Your task to perform on an android device: Go to internet settings Image 0: 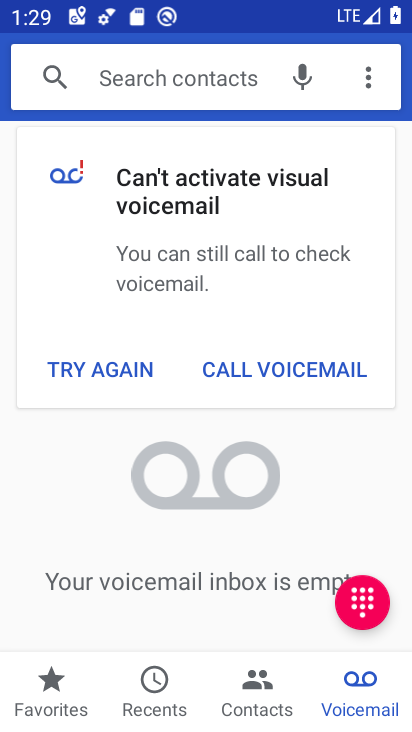
Step 0: drag from (244, 636) to (306, 169)
Your task to perform on an android device: Go to internet settings Image 1: 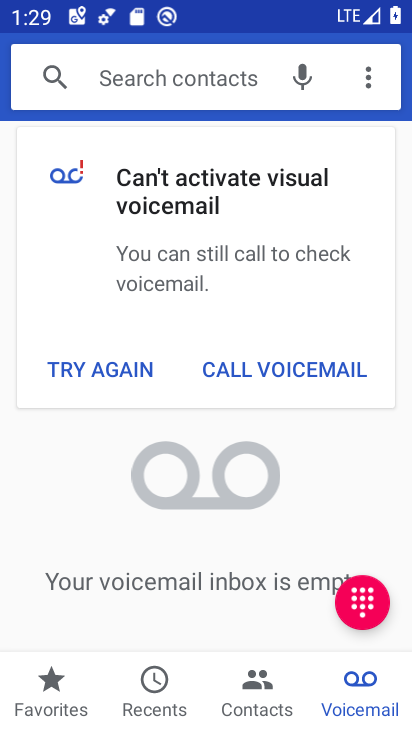
Step 1: drag from (189, 588) to (402, 138)
Your task to perform on an android device: Go to internet settings Image 2: 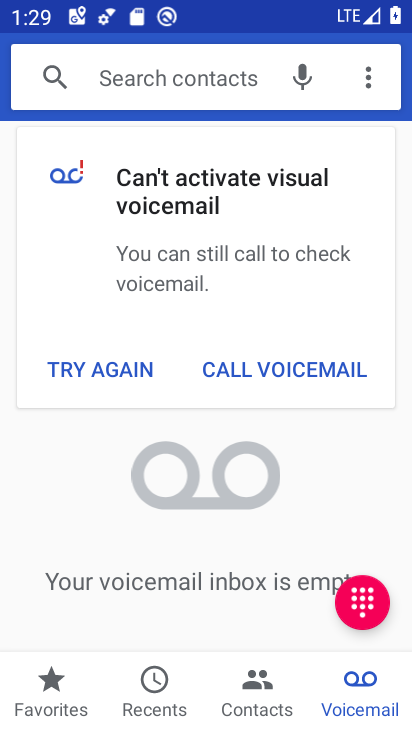
Step 2: drag from (188, 564) to (258, 163)
Your task to perform on an android device: Go to internet settings Image 3: 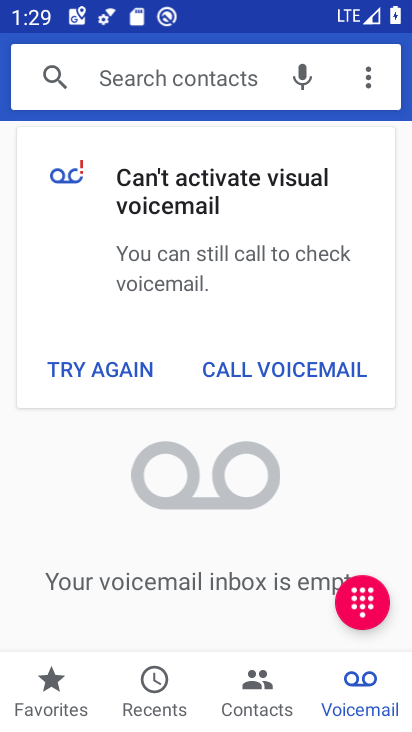
Step 3: drag from (225, 572) to (279, 196)
Your task to perform on an android device: Go to internet settings Image 4: 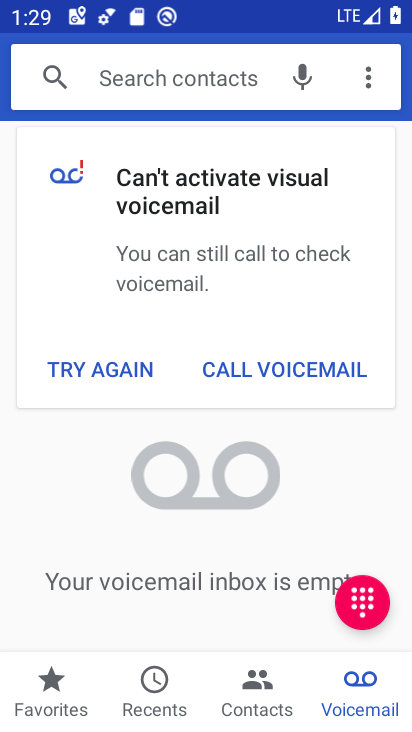
Step 4: drag from (213, 577) to (266, 228)
Your task to perform on an android device: Go to internet settings Image 5: 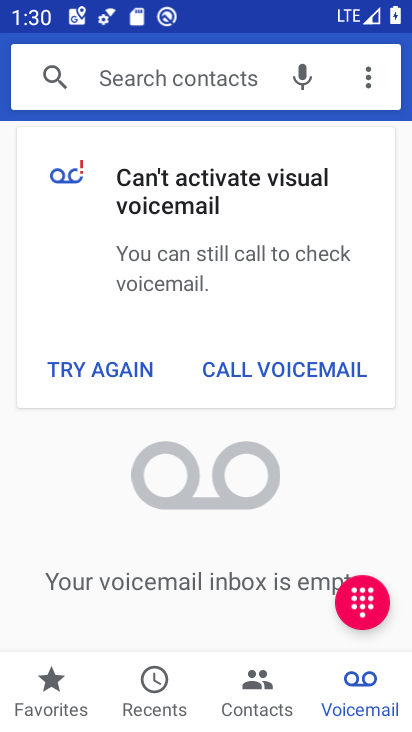
Step 5: press home button
Your task to perform on an android device: Go to internet settings Image 6: 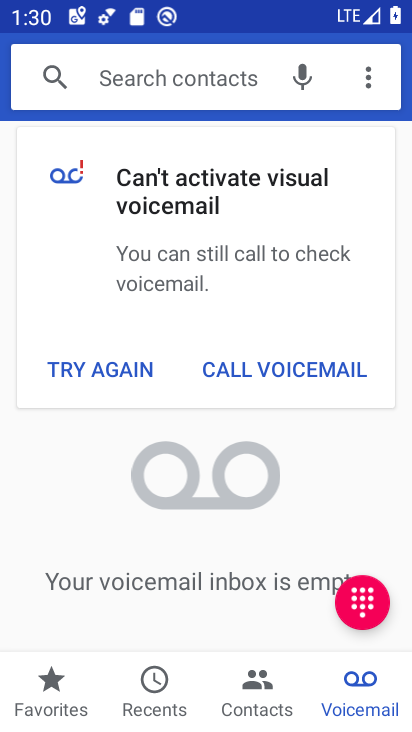
Step 6: drag from (206, 491) to (244, 5)
Your task to perform on an android device: Go to internet settings Image 7: 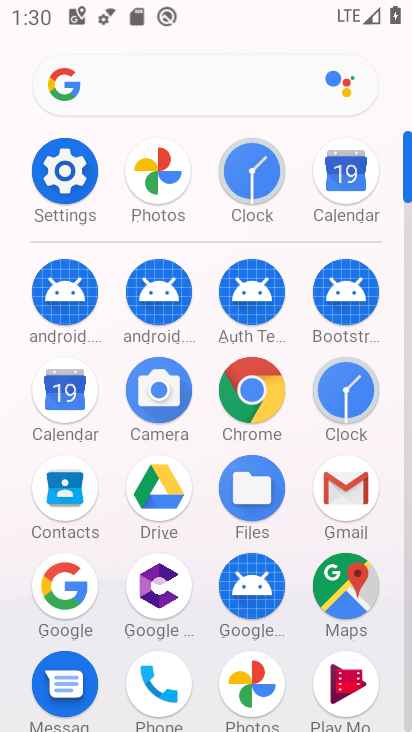
Step 7: click (72, 170)
Your task to perform on an android device: Go to internet settings Image 8: 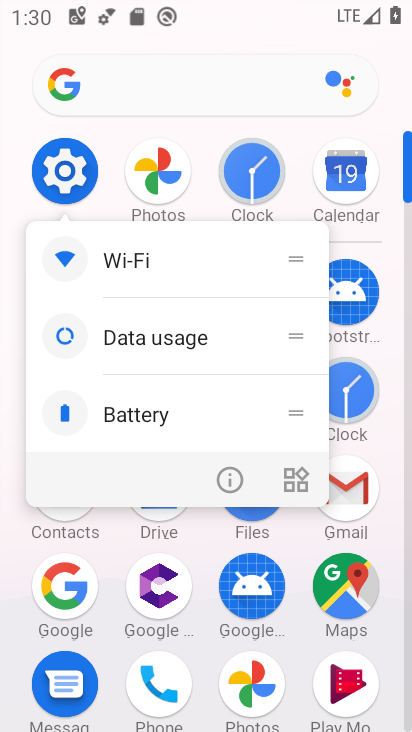
Step 8: click (150, 251)
Your task to perform on an android device: Go to internet settings Image 9: 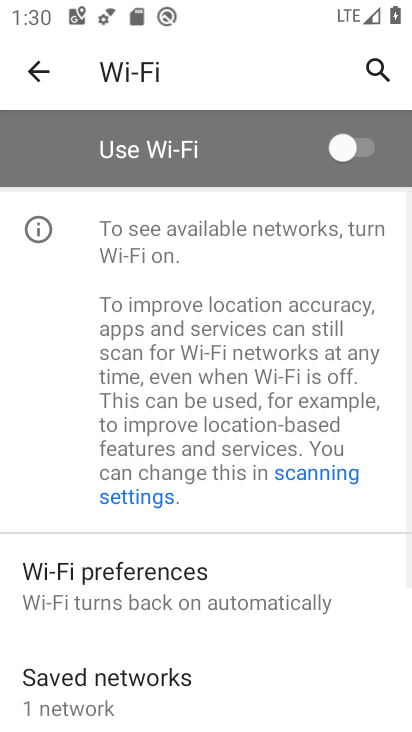
Step 9: click (41, 59)
Your task to perform on an android device: Go to internet settings Image 10: 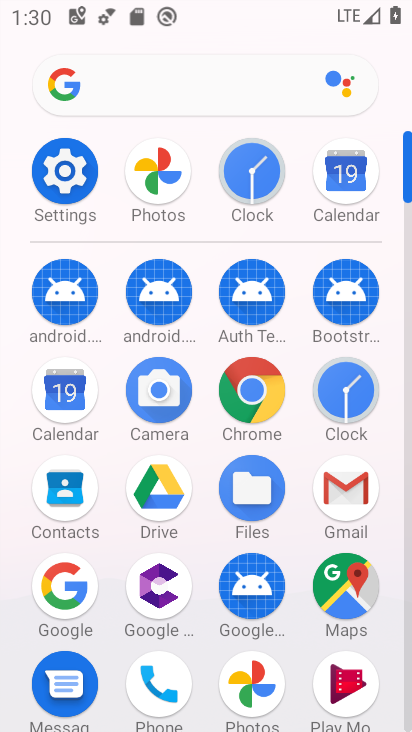
Step 10: click (36, 178)
Your task to perform on an android device: Go to internet settings Image 11: 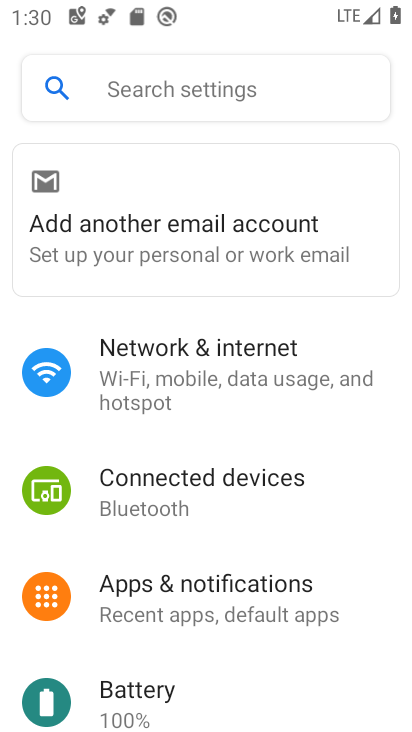
Step 11: drag from (174, 182) to (304, 11)
Your task to perform on an android device: Go to internet settings Image 12: 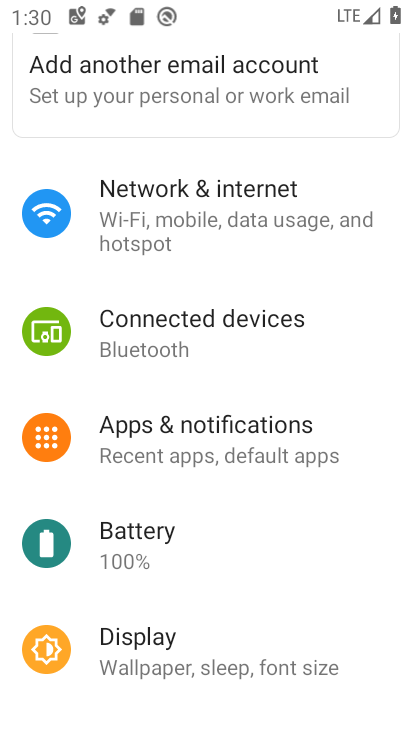
Step 12: click (130, 186)
Your task to perform on an android device: Go to internet settings Image 13: 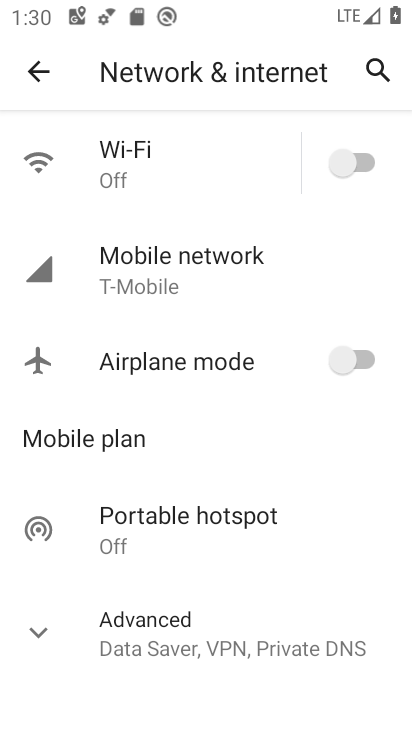
Step 13: task complete